Your task to perform on an android device: change notification settings in the gmail app Image 0: 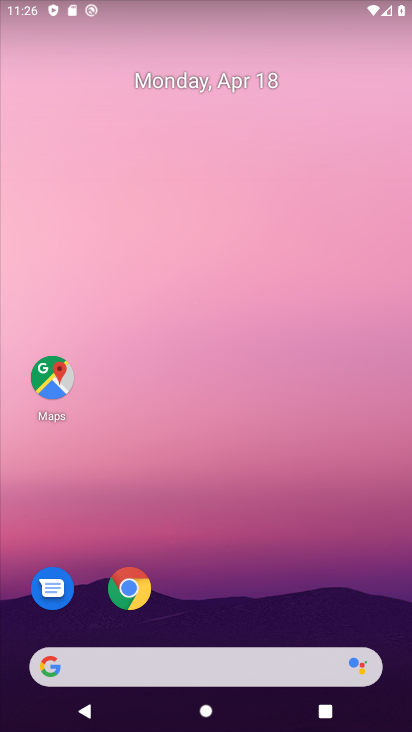
Step 0: drag from (267, 514) to (203, 40)
Your task to perform on an android device: change notification settings in the gmail app Image 1: 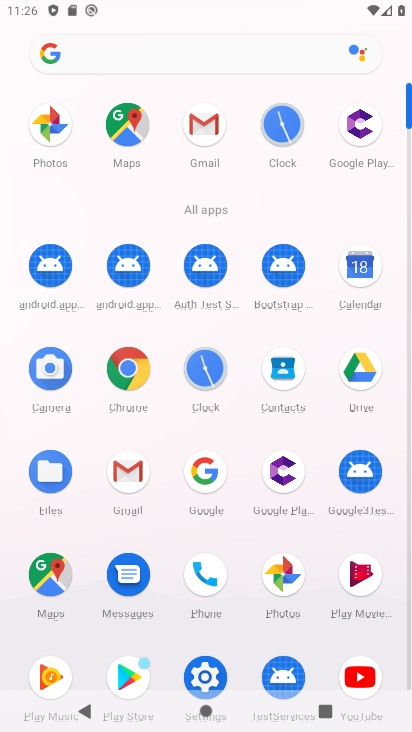
Step 1: click (126, 468)
Your task to perform on an android device: change notification settings in the gmail app Image 2: 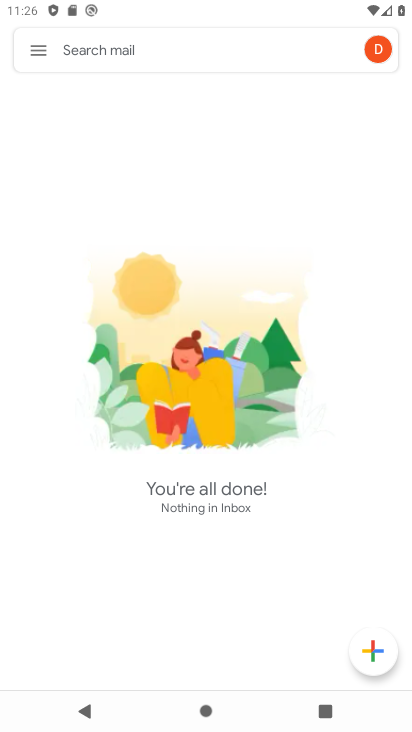
Step 2: click (155, 47)
Your task to perform on an android device: change notification settings in the gmail app Image 3: 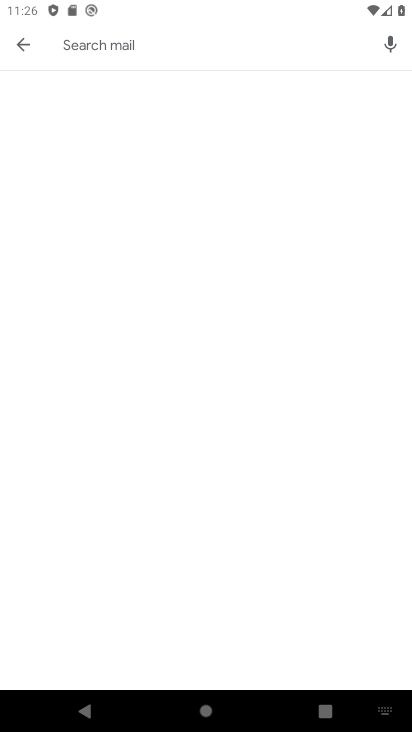
Step 3: click (28, 38)
Your task to perform on an android device: change notification settings in the gmail app Image 4: 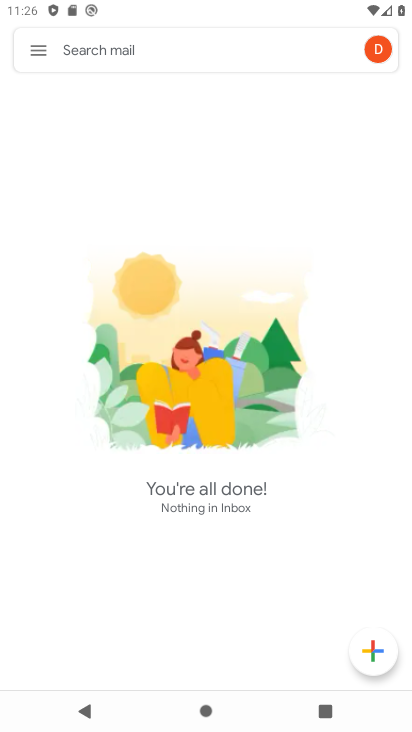
Step 4: click (32, 40)
Your task to perform on an android device: change notification settings in the gmail app Image 5: 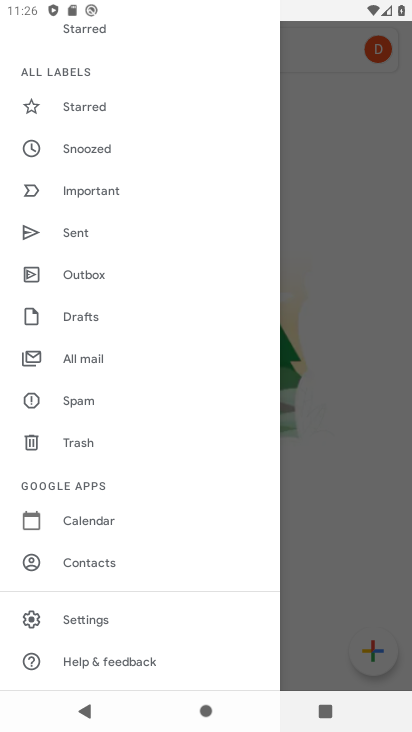
Step 5: click (101, 617)
Your task to perform on an android device: change notification settings in the gmail app Image 6: 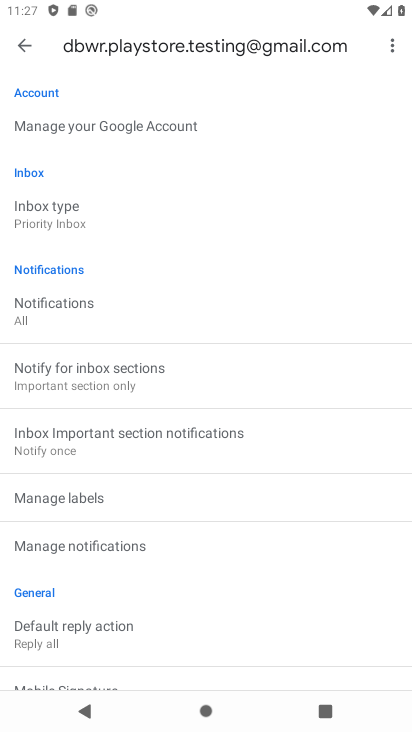
Step 6: drag from (195, 384) to (195, 187)
Your task to perform on an android device: change notification settings in the gmail app Image 7: 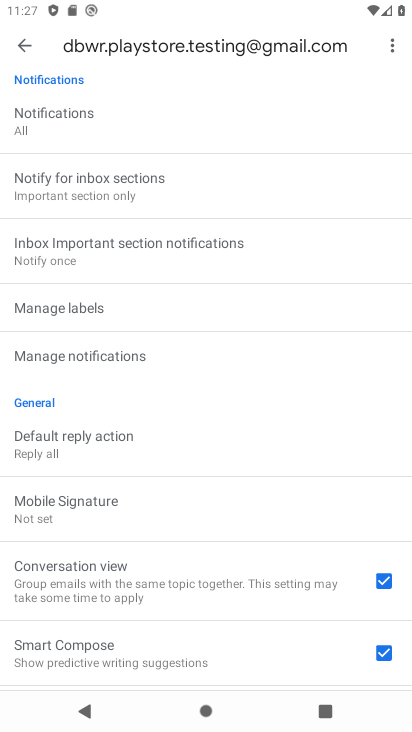
Step 7: click (102, 337)
Your task to perform on an android device: change notification settings in the gmail app Image 8: 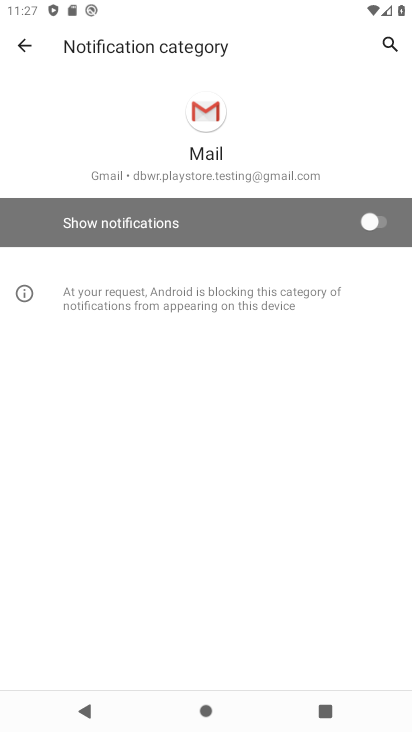
Step 8: click (366, 221)
Your task to perform on an android device: change notification settings in the gmail app Image 9: 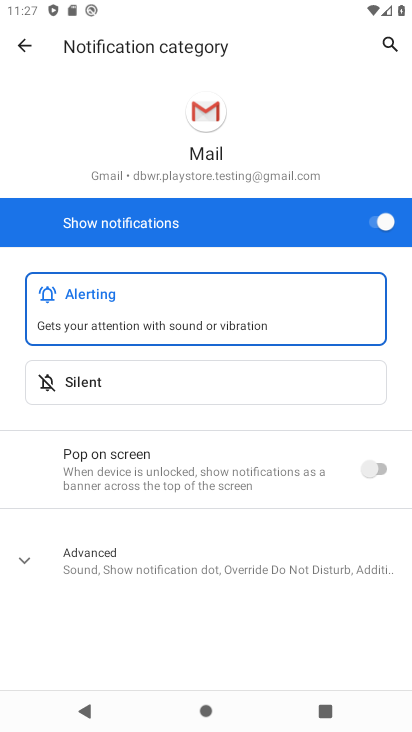
Step 9: click (366, 221)
Your task to perform on an android device: change notification settings in the gmail app Image 10: 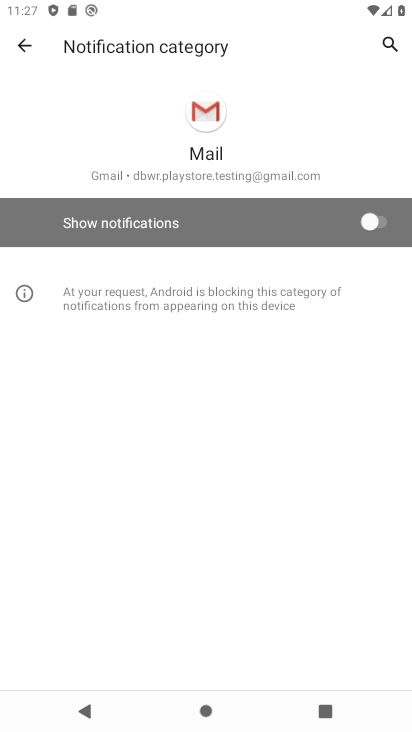
Step 10: click (361, 220)
Your task to perform on an android device: change notification settings in the gmail app Image 11: 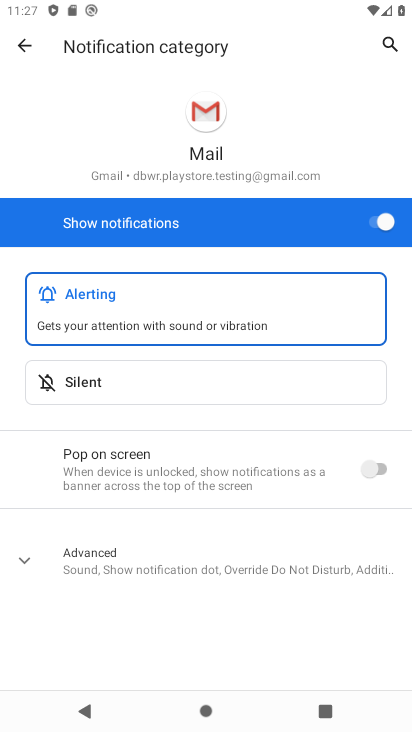
Step 11: task complete